Your task to perform on an android device: Open Youtube and go to the subscriptions tab Image 0: 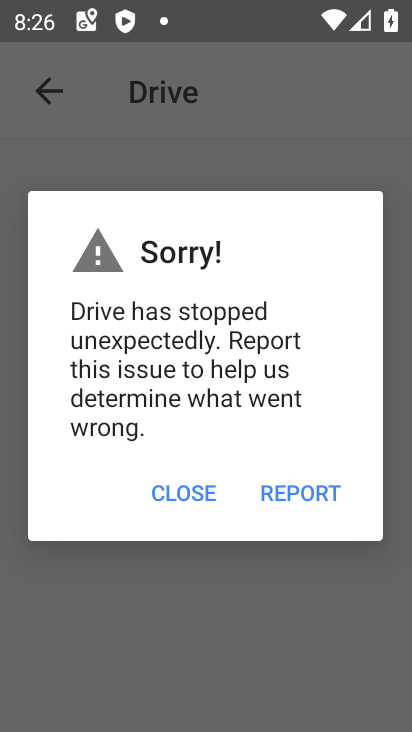
Step 0: press home button
Your task to perform on an android device: Open Youtube and go to the subscriptions tab Image 1: 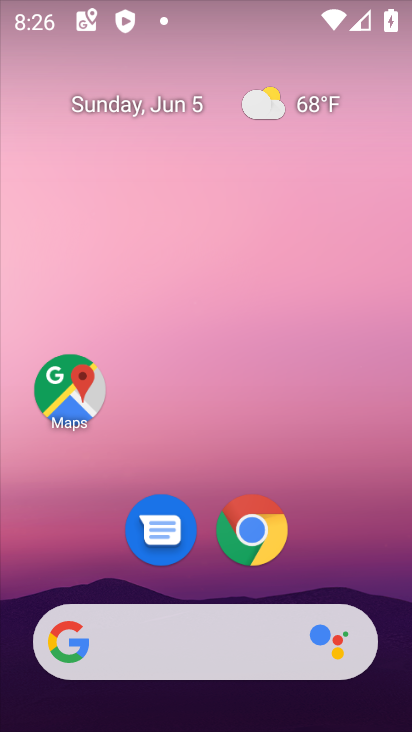
Step 1: drag from (394, 632) to (328, 142)
Your task to perform on an android device: Open Youtube and go to the subscriptions tab Image 2: 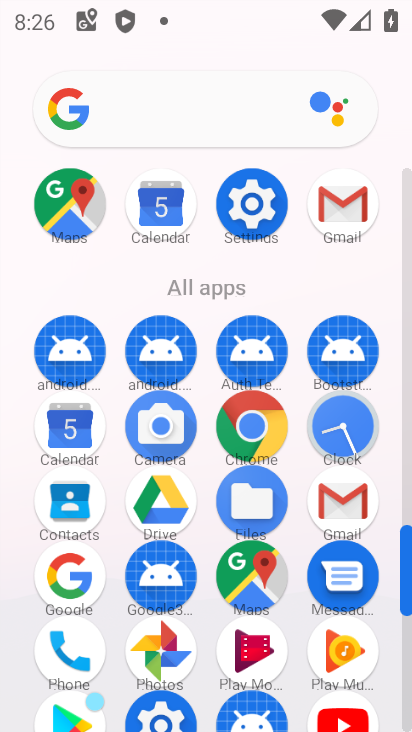
Step 2: click (408, 685)
Your task to perform on an android device: Open Youtube and go to the subscriptions tab Image 3: 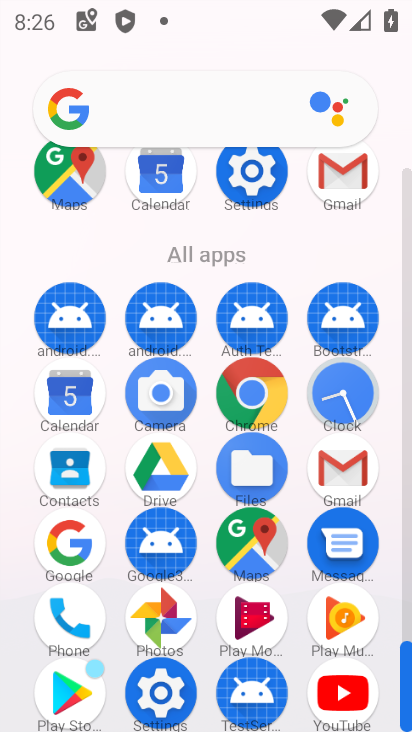
Step 3: click (339, 691)
Your task to perform on an android device: Open Youtube and go to the subscriptions tab Image 4: 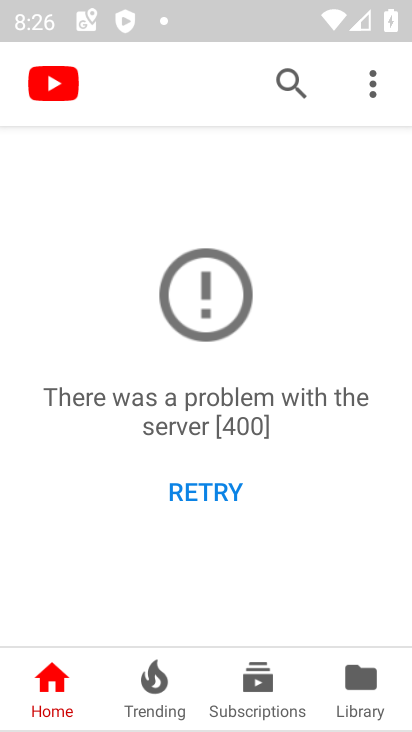
Step 4: click (261, 687)
Your task to perform on an android device: Open Youtube and go to the subscriptions tab Image 5: 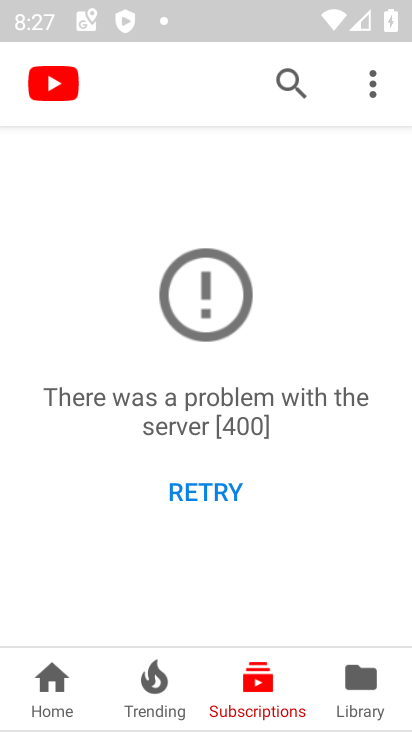
Step 5: click (195, 490)
Your task to perform on an android device: Open Youtube and go to the subscriptions tab Image 6: 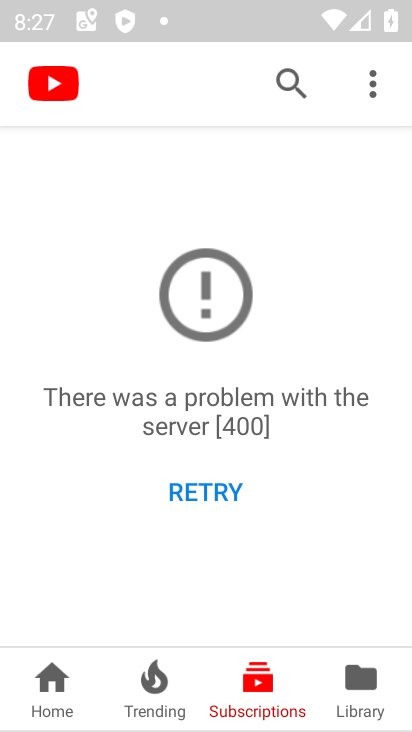
Step 6: task complete